Your task to perform on an android device: turn off location history Image 0: 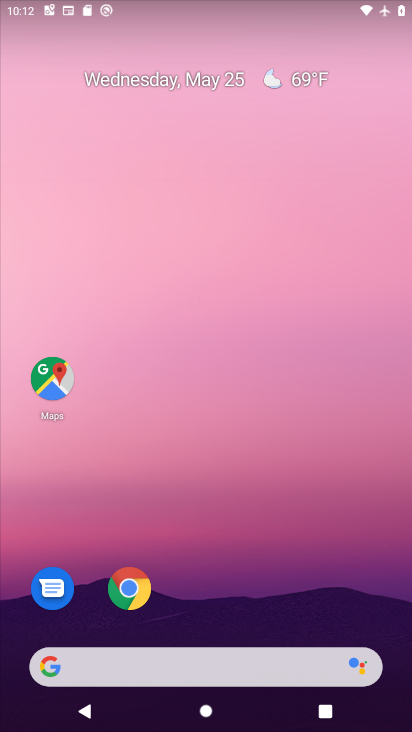
Step 0: drag from (360, 602) to (361, 213)
Your task to perform on an android device: turn off location history Image 1: 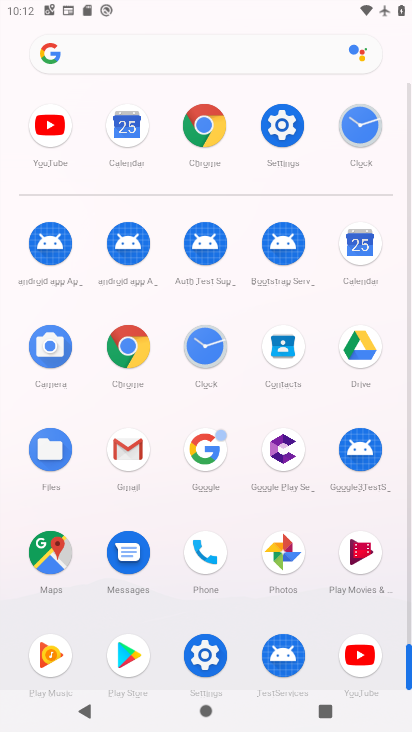
Step 1: click (288, 142)
Your task to perform on an android device: turn off location history Image 2: 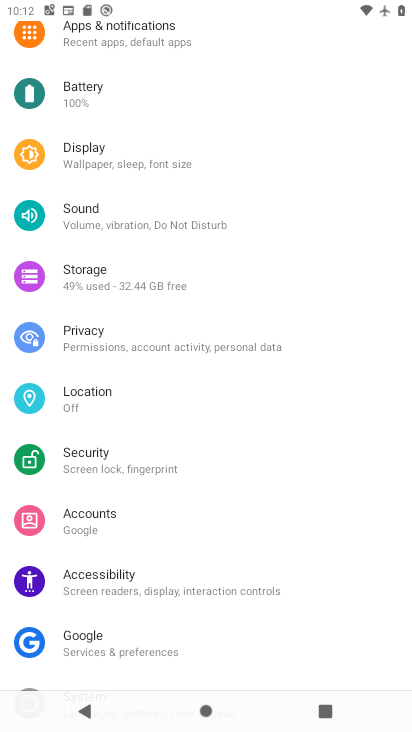
Step 2: drag from (351, 588) to (349, 454)
Your task to perform on an android device: turn off location history Image 3: 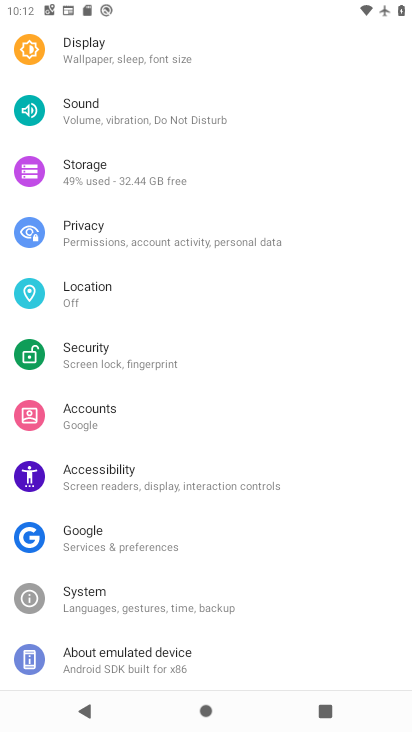
Step 3: drag from (353, 578) to (353, 428)
Your task to perform on an android device: turn off location history Image 4: 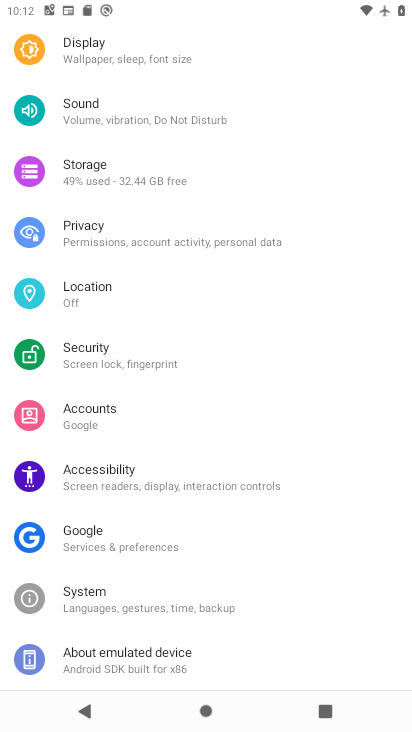
Step 4: drag from (337, 576) to (334, 431)
Your task to perform on an android device: turn off location history Image 5: 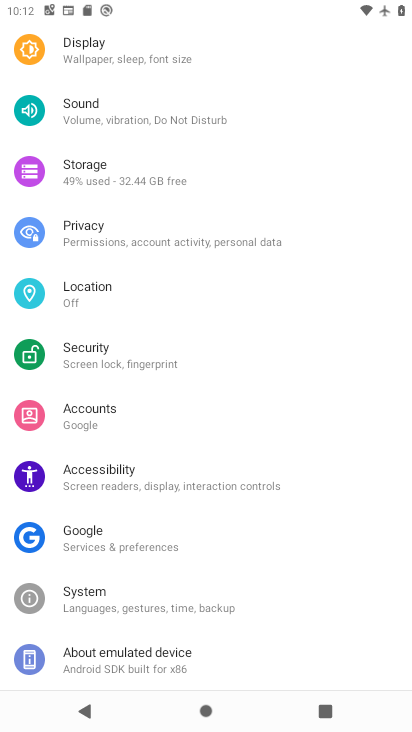
Step 5: drag from (345, 569) to (340, 444)
Your task to perform on an android device: turn off location history Image 6: 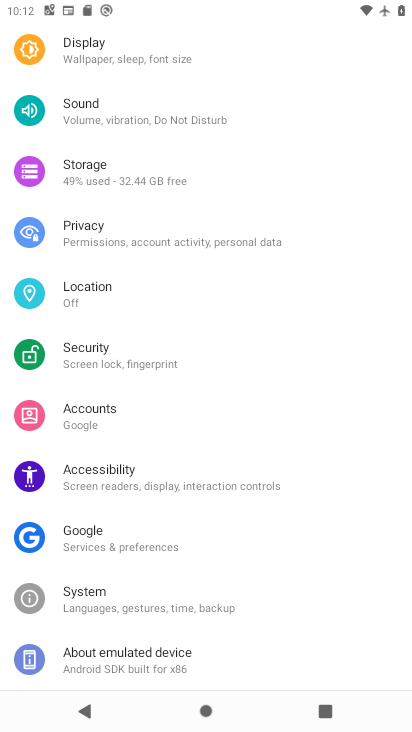
Step 6: drag from (346, 570) to (336, 432)
Your task to perform on an android device: turn off location history Image 7: 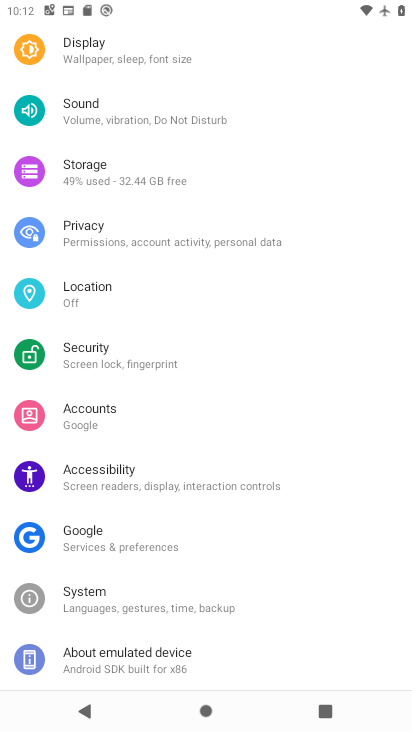
Step 7: drag from (314, 576) to (307, 418)
Your task to perform on an android device: turn off location history Image 8: 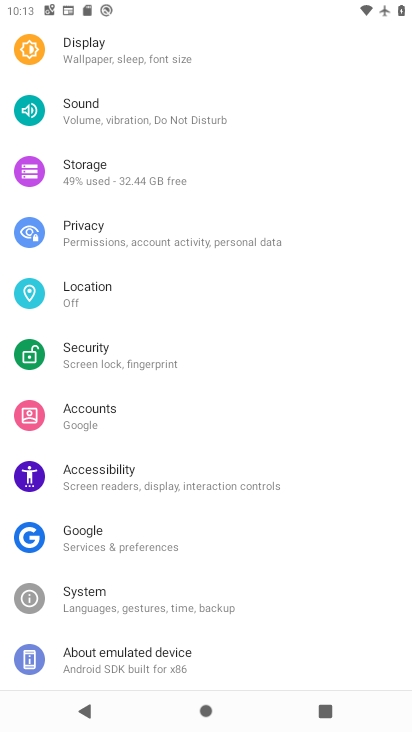
Step 8: click (108, 302)
Your task to perform on an android device: turn off location history Image 9: 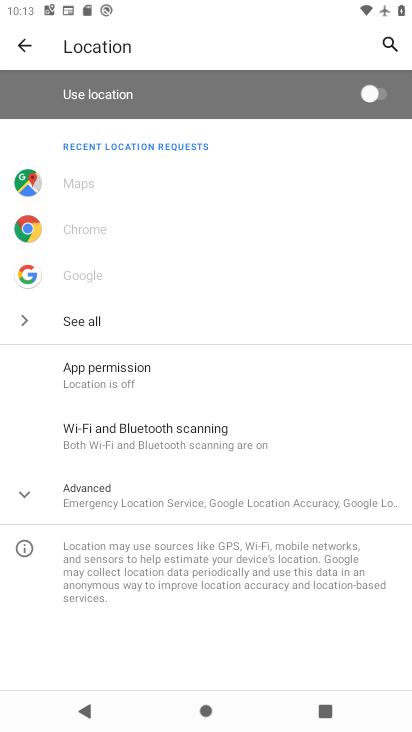
Step 9: click (255, 490)
Your task to perform on an android device: turn off location history Image 10: 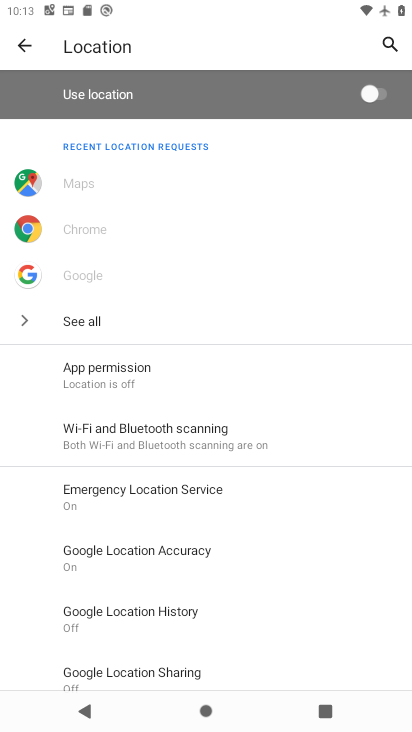
Step 10: task complete